Your task to perform on an android device: Go to Yahoo.com Image 0: 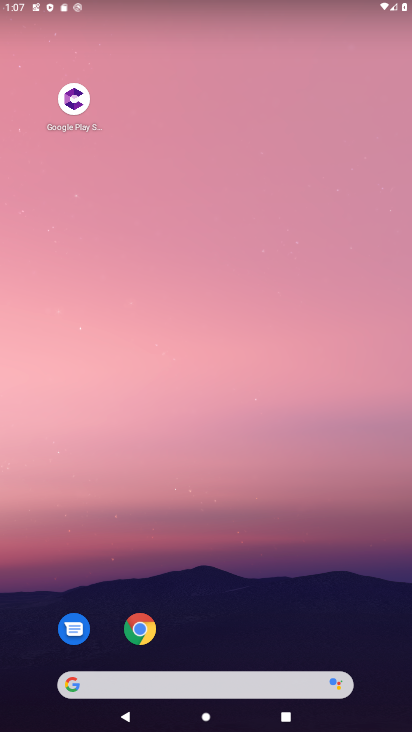
Step 0: click (134, 627)
Your task to perform on an android device: Go to Yahoo.com Image 1: 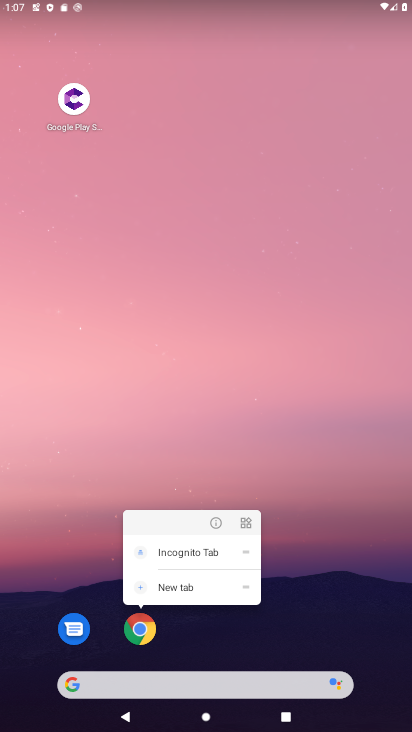
Step 1: click (134, 627)
Your task to perform on an android device: Go to Yahoo.com Image 2: 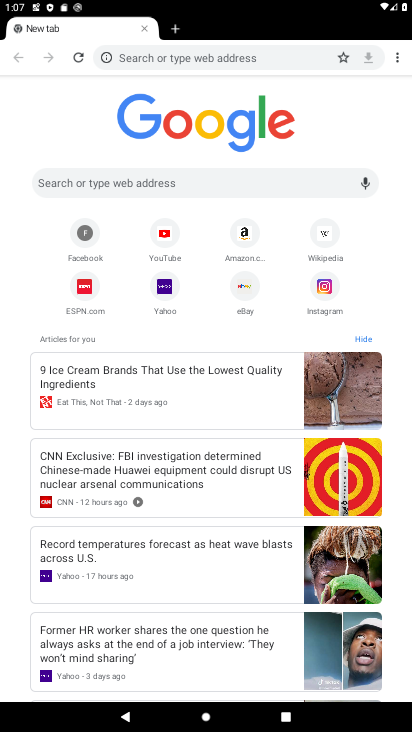
Step 2: click (178, 38)
Your task to perform on an android device: Go to Yahoo.com Image 3: 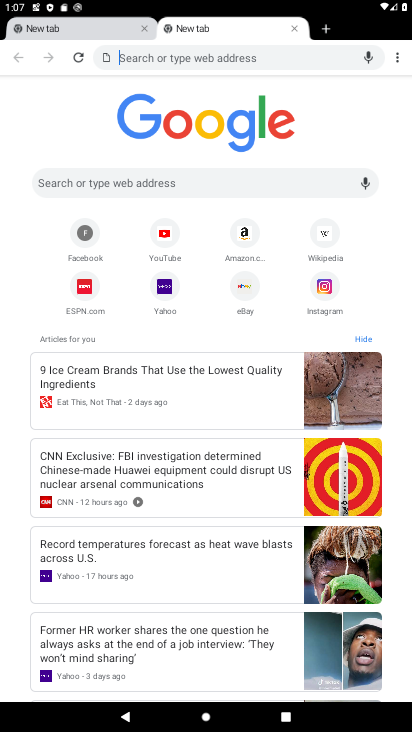
Step 3: click (160, 296)
Your task to perform on an android device: Go to Yahoo.com Image 4: 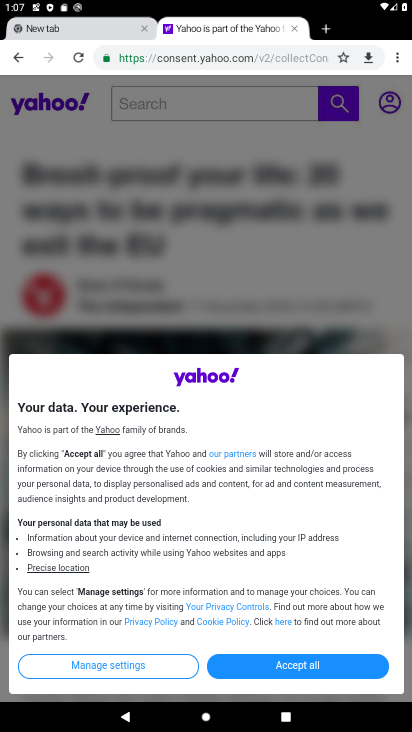
Step 4: task complete